Your task to perform on an android device: open app "HBO Max: Stream TV & Movies" (install if not already installed) and enter user name: "faring@outlook.com" and password: "appropriately" Image 0: 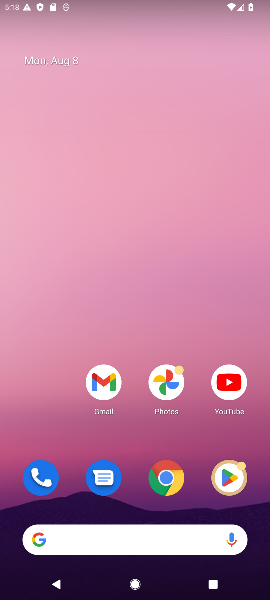
Step 0: click (177, 542)
Your task to perform on an android device: open app "HBO Max: Stream TV & Movies" (install if not already installed) and enter user name: "faring@outlook.com" and password: "appropriately" Image 1: 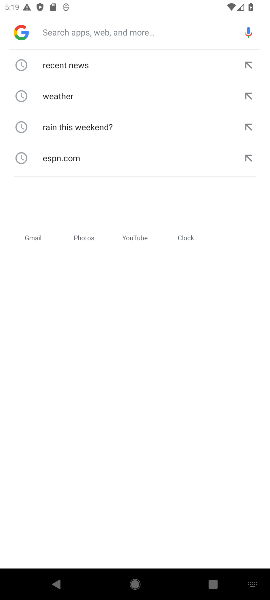
Step 1: press home button
Your task to perform on an android device: open app "HBO Max: Stream TV & Movies" (install if not already installed) and enter user name: "faring@outlook.com" and password: "appropriately" Image 2: 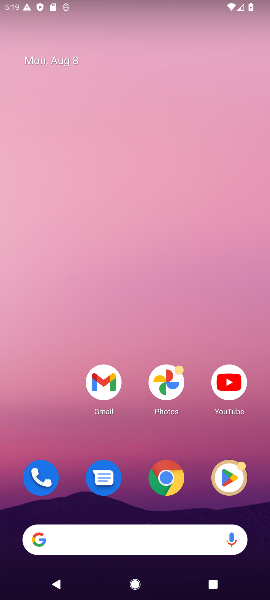
Step 2: drag from (53, 423) to (138, 0)
Your task to perform on an android device: open app "HBO Max: Stream TV & Movies" (install if not already installed) and enter user name: "faring@outlook.com" and password: "appropriately" Image 3: 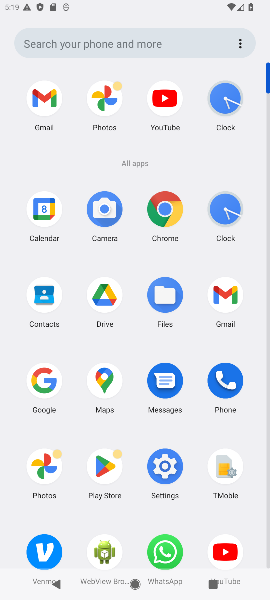
Step 3: click (105, 462)
Your task to perform on an android device: open app "HBO Max: Stream TV & Movies" (install if not already installed) and enter user name: "faring@outlook.com" and password: "appropriately" Image 4: 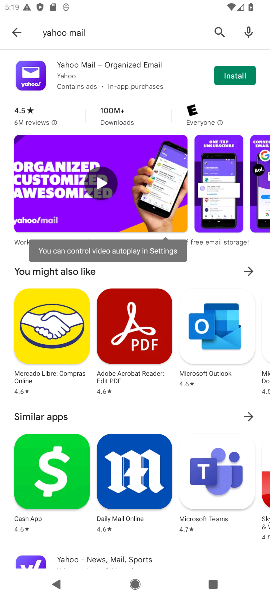
Step 4: click (13, 28)
Your task to perform on an android device: open app "HBO Max: Stream TV & Movies" (install if not already installed) and enter user name: "faring@outlook.com" and password: "appropriately" Image 5: 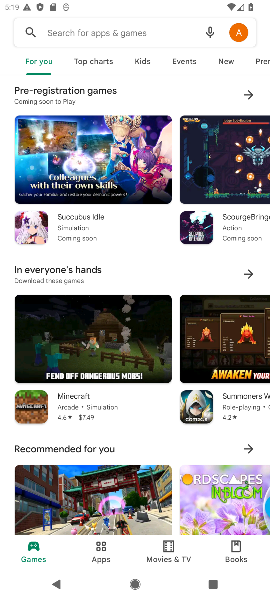
Step 5: click (70, 26)
Your task to perform on an android device: open app "HBO Max: Stream TV & Movies" (install if not already installed) and enter user name: "faring@outlook.com" and password: "appropriately" Image 6: 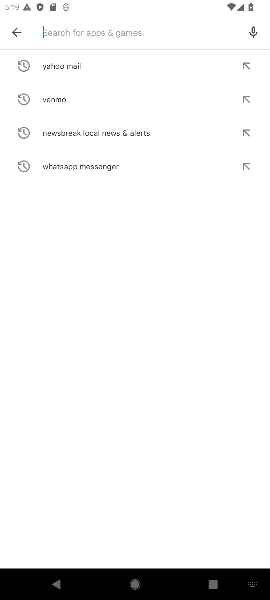
Step 6: type "HBO Max: Stream TV & Movies "
Your task to perform on an android device: open app "HBO Max: Stream TV & Movies" (install if not already installed) and enter user name: "faring@outlook.com" and password: "appropriately" Image 7: 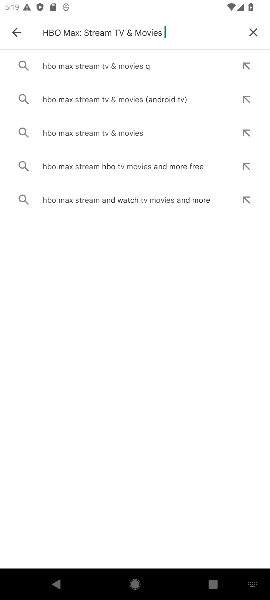
Step 7: click (130, 67)
Your task to perform on an android device: open app "HBO Max: Stream TV & Movies" (install if not already installed) and enter user name: "faring@outlook.com" and password: "appropriately" Image 8: 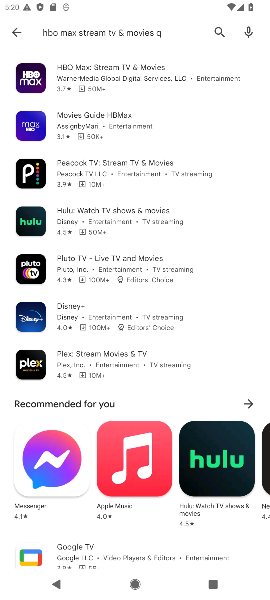
Step 8: click (130, 67)
Your task to perform on an android device: open app "HBO Max: Stream TV & Movies" (install if not already installed) and enter user name: "faring@outlook.com" and password: "appropriately" Image 9: 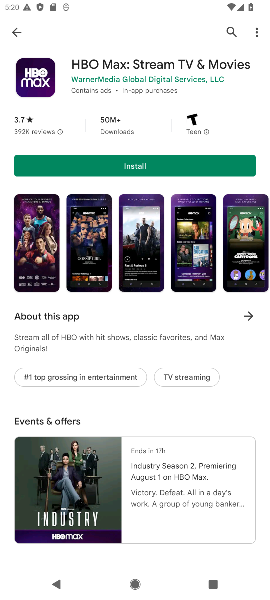
Step 9: click (136, 168)
Your task to perform on an android device: open app "HBO Max: Stream TV & Movies" (install if not already installed) and enter user name: "faring@outlook.com" and password: "appropriately" Image 10: 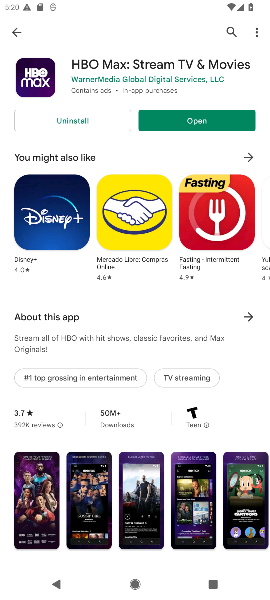
Step 10: click (244, 124)
Your task to perform on an android device: open app "HBO Max: Stream TV & Movies" (install if not already installed) and enter user name: "faring@outlook.com" and password: "appropriately" Image 11: 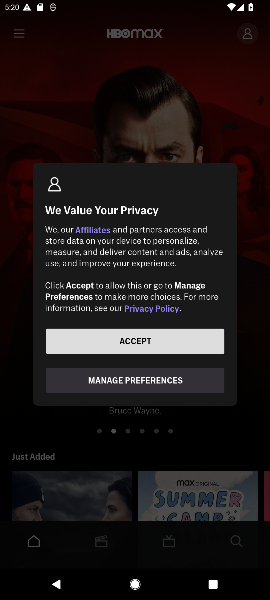
Step 11: click (183, 344)
Your task to perform on an android device: open app "HBO Max: Stream TV & Movies" (install if not already installed) and enter user name: "faring@outlook.com" and password: "appropriately" Image 12: 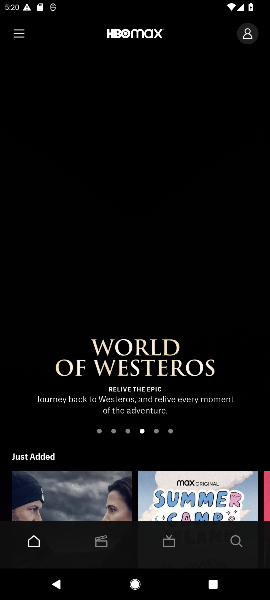
Step 12: click (102, 545)
Your task to perform on an android device: open app "HBO Max: Stream TV & Movies" (install if not already installed) and enter user name: "faring@outlook.com" and password: "appropriately" Image 13: 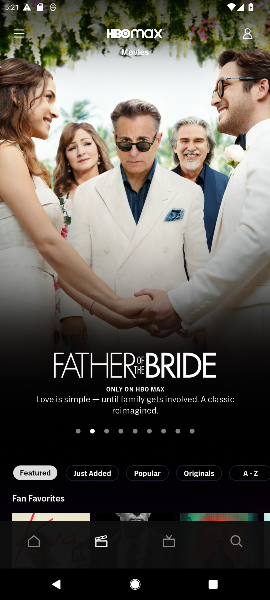
Step 13: task complete